Your task to perform on an android device: turn off wifi Image 0: 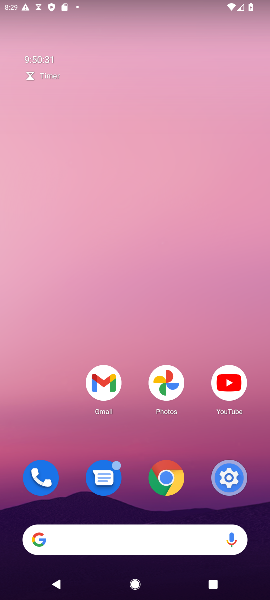
Step 0: drag from (208, 326) to (189, 24)
Your task to perform on an android device: turn off wifi Image 1: 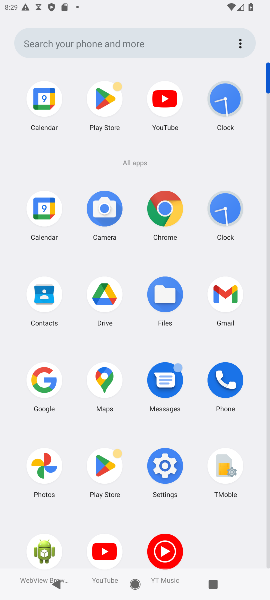
Step 1: click (162, 488)
Your task to perform on an android device: turn off wifi Image 2: 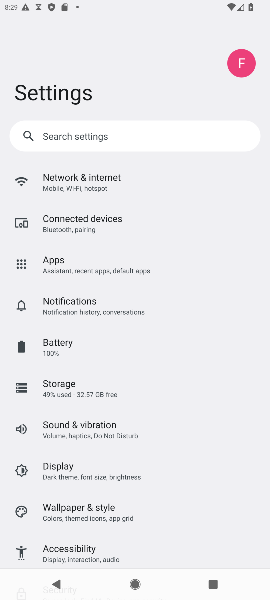
Step 2: click (140, 174)
Your task to perform on an android device: turn off wifi Image 3: 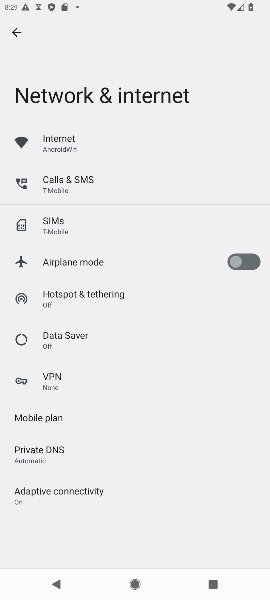
Step 3: click (113, 133)
Your task to perform on an android device: turn off wifi Image 4: 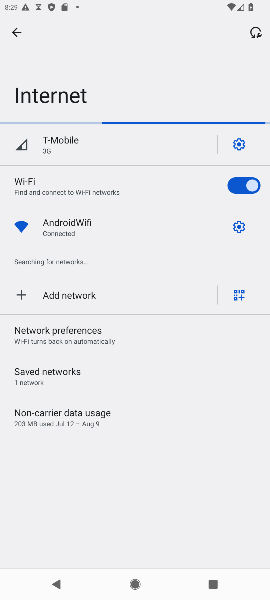
Step 4: click (234, 185)
Your task to perform on an android device: turn off wifi Image 5: 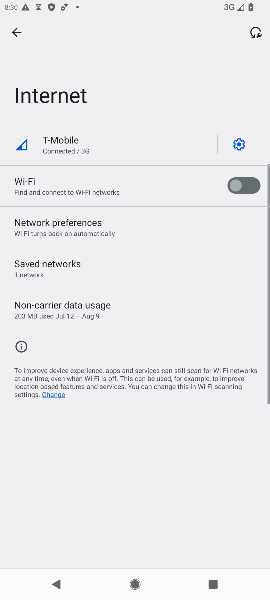
Step 5: task complete